Your task to perform on an android device: Go to battery settings Image 0: 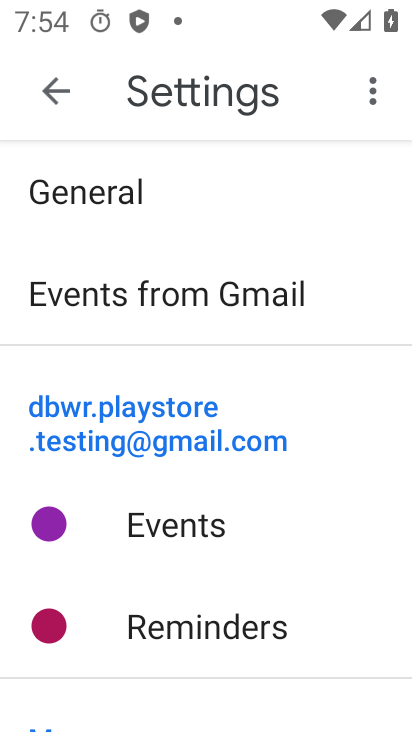
Step 0: press home button
Your task to perform on an android device: Go to battery settings Image 1: 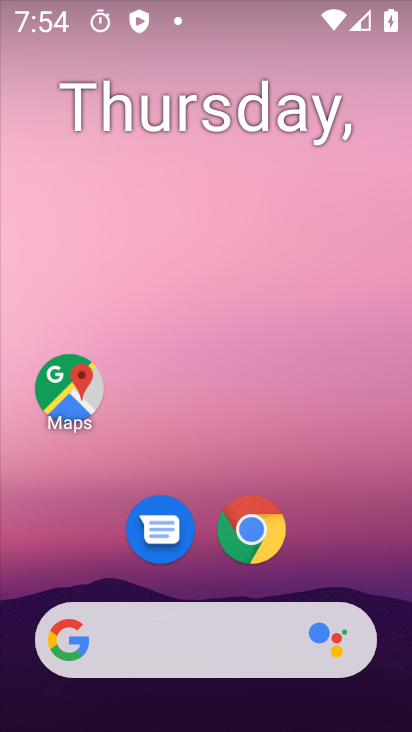
Step 1: drag from (382, 681) to (320, 163)
Your task to perform on an android device: Go to battery settings Image 2: 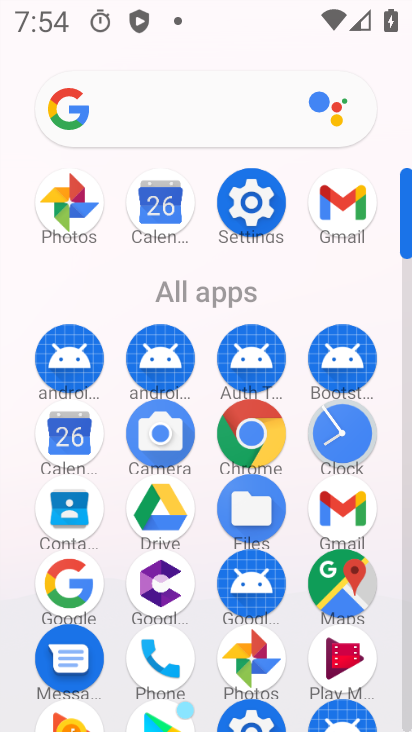
Step 2: click (244, 204)
Your task to perform on an android device: Go to battery settings Image 3: 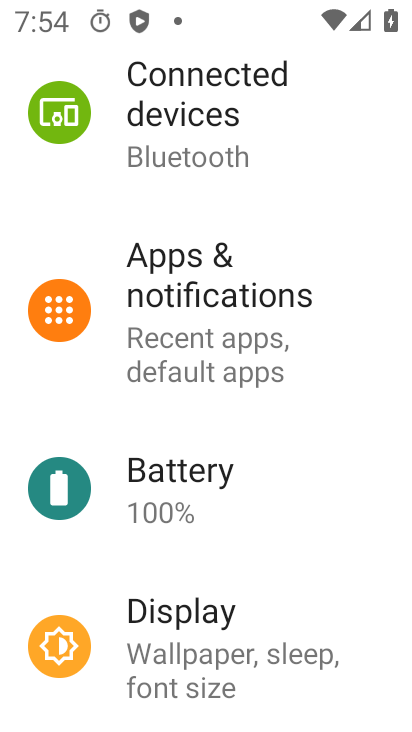
Step 3: click (181, 491)
Your task to perform on an android device: Go to battery settings Image 4: 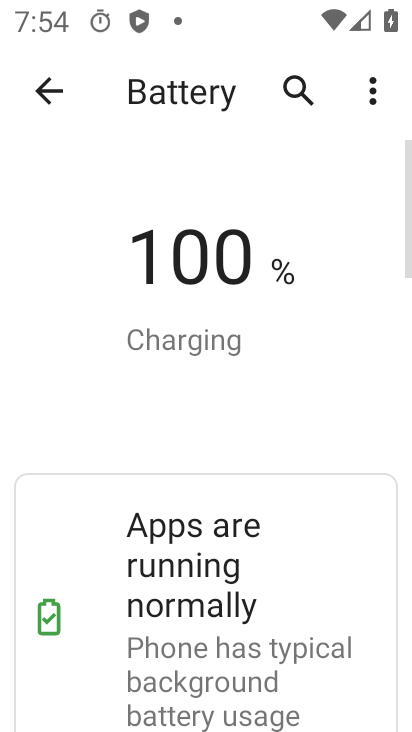
Step 4: task complete